Your task to perform on an android device: toggle show notifications on the lock screen Image 0: 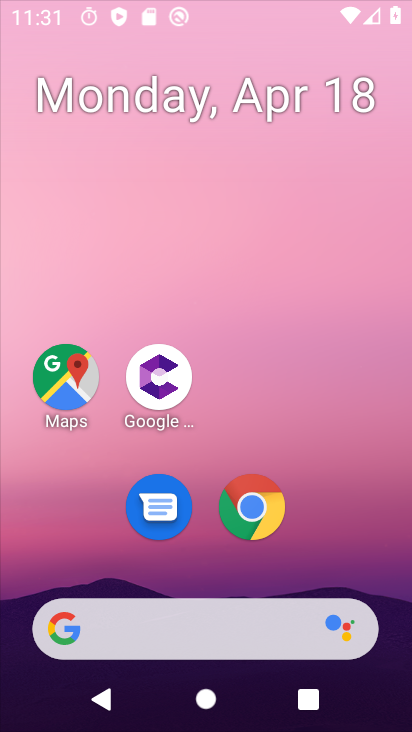
Step 0: drag from (406, 488) to (390, 525)
Your task to perform on an android device: toggle show notifications on the lock screen Image 1: 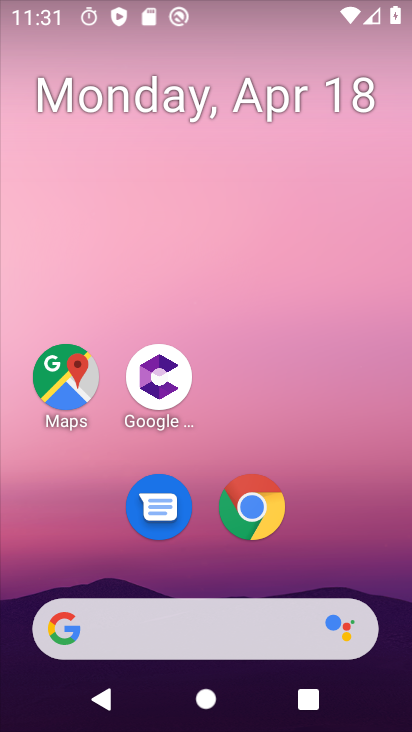
Step 1: drag from (304, 566) to (211, 245)
Your task to perform on an android device: toggle show notifications on the lock screen Image 2: 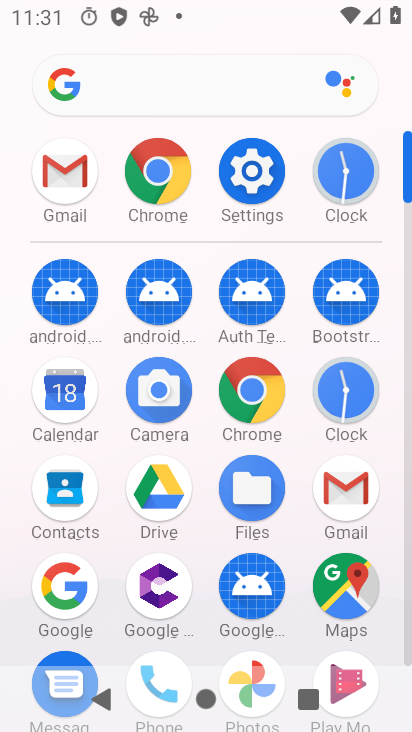
Step 2: click (250, 177)
Your task to perform on an android device: toggle show notifications on the lock screen Image 3: 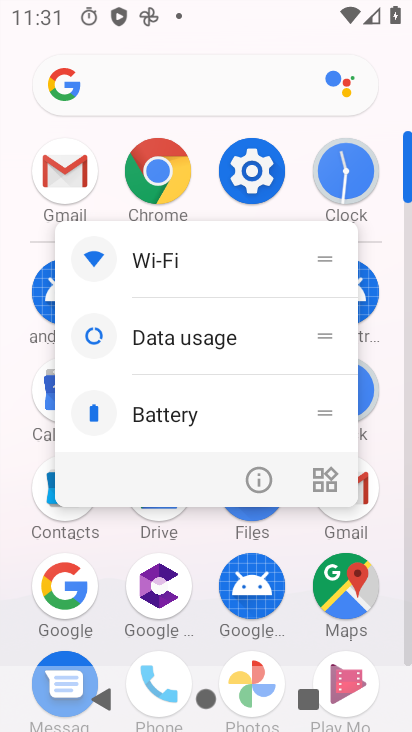
Step 3: click (256, 180)
Your task to perform on an android device: toggle show notifications on the lock screen Image 4: 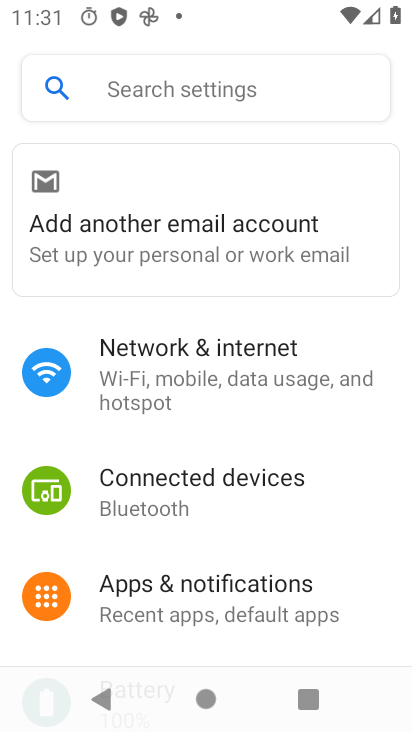
Step 4: click (164, 108)
Your task to perform on an android device: toggle show notifications on the lock screen Image 5: 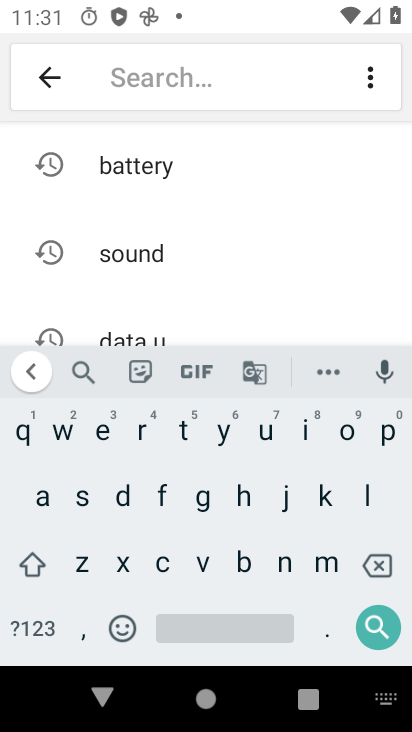
Step 5: click (368, 487)
Your task to perform on an android device: toggle show notifications on the lock screen Image 6: 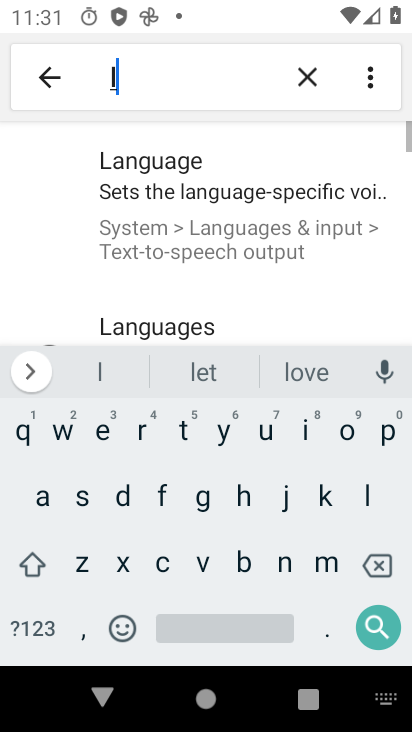
Step 6: click (343, 439)
Your task to perform on an android device: toggle show notifications on the lock screen Image 7: 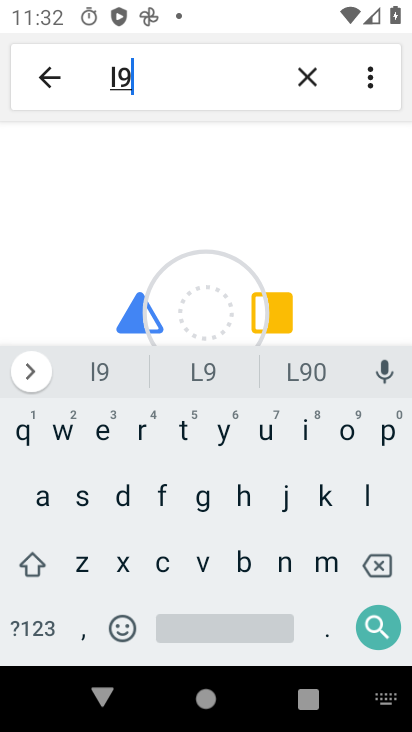
Step 7: click (373, 566)
Your task to perform on an android device: toggle show notifications on the lock screen Image 8: 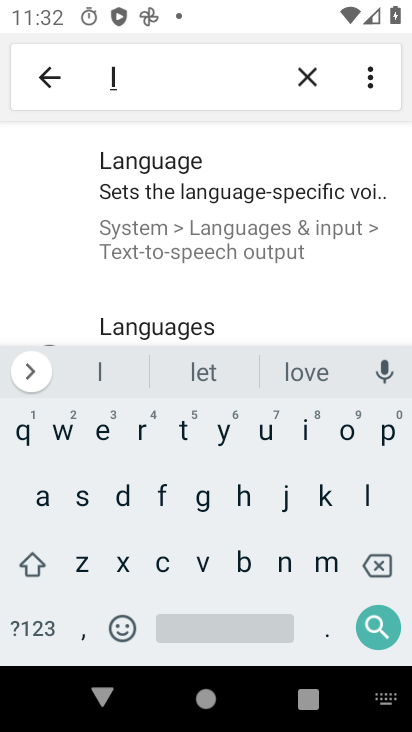
Step 8: click (346, 444)
Your task to perform on an android device: toggle show notifications on the lock screen Image 9: 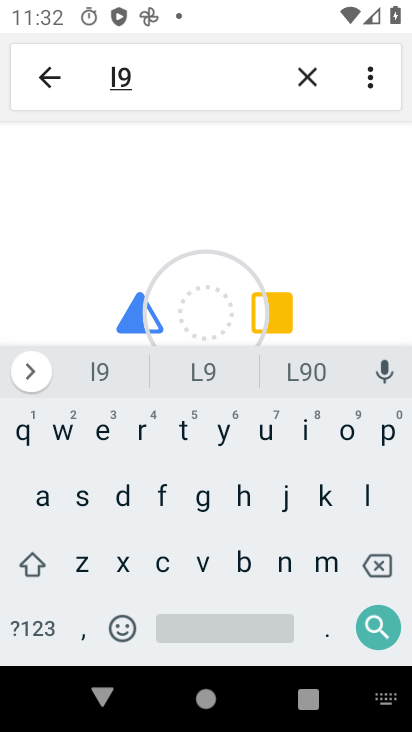
Step 9: click (378, 568)
Your task to perform on an android device: toggle show notifications on the lock screen Image 10: 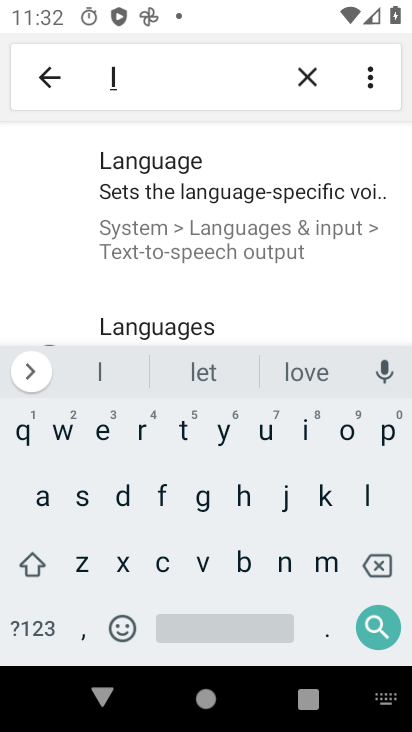
Step 10: click (347, 437)
Your task to perform on an android device: toggle show notifications on the lock screen Image 11: 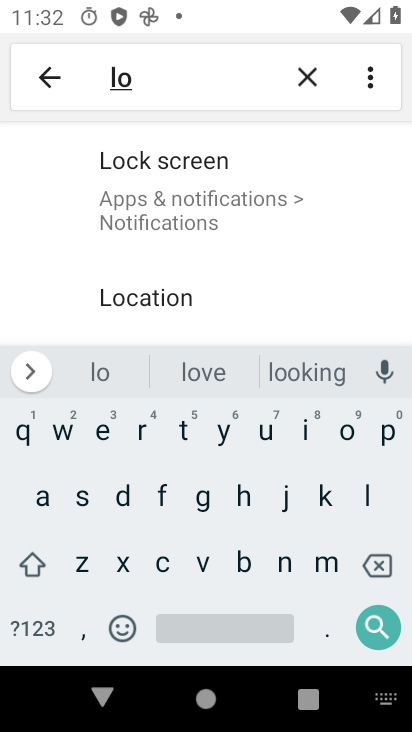
Step 11: click (244, 208)
Your task to perform on an android device: toggle show notifications on the lock screen Image 12: 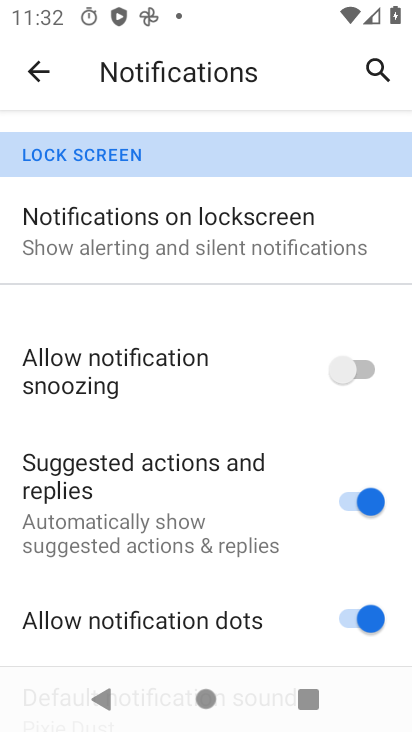
Step 12: click (175, 224)
Your task to perform on an android device: toggle show notifications on the lock screen Image 13: 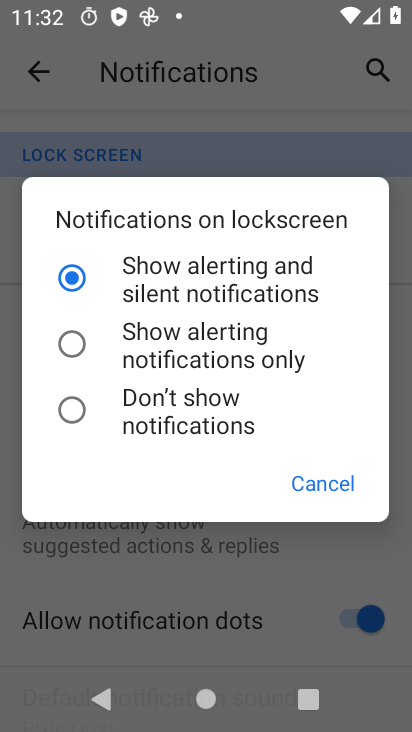
Step 13: task complete